Your task to perform on an android device: turn pop-ups off in chrome Image 0: 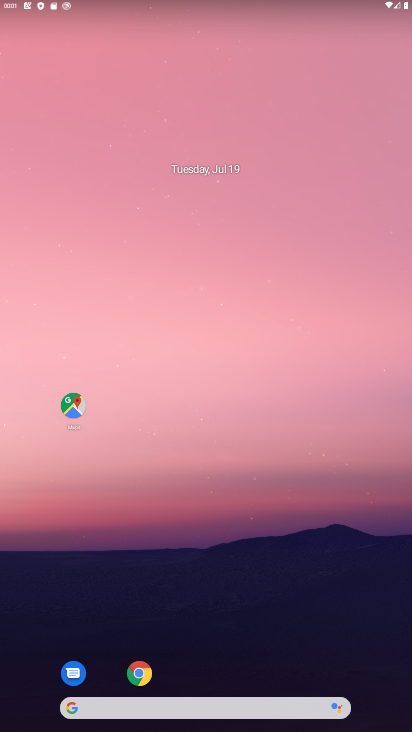
Step 0: drag from (235, 650) to (235, 188)
Your task to perform on an android device: turn pop-ups off in chrome Image 1: 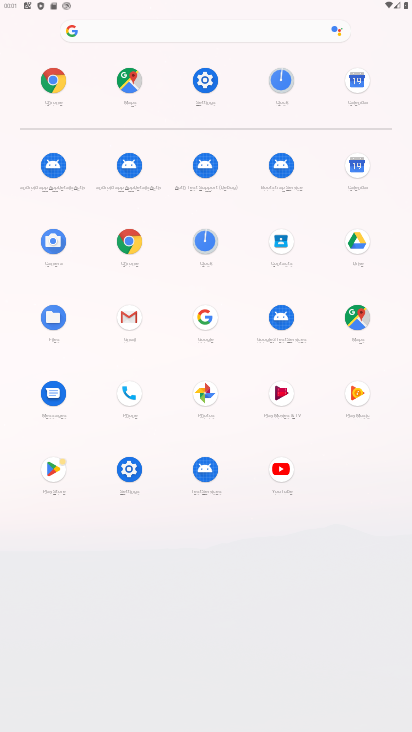
Step 1: click (56, 87)
Your task to perform on an android device: turn pop-ups off in chrome Image 2: 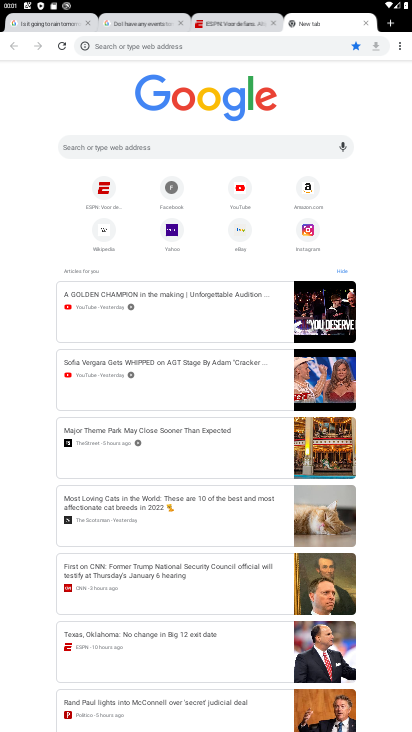
Step 2: click (402, 42)
Your task to perform on an android device: turn pop-ups off in chrome Image 3: 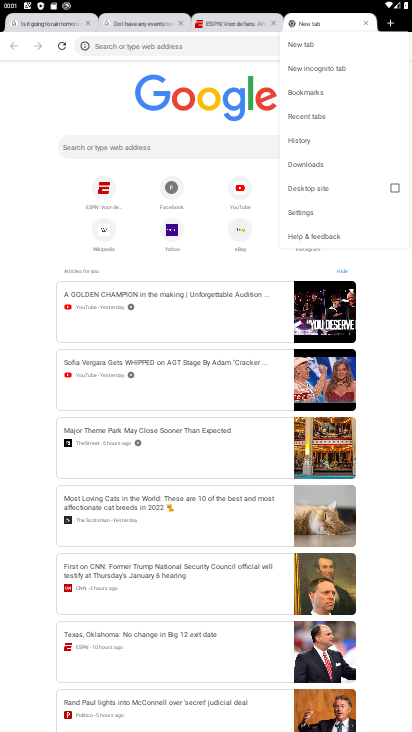
Step 3: click (318, 206)
Your task to perform on an android device: turn pop-ups off in chrome Image 4: 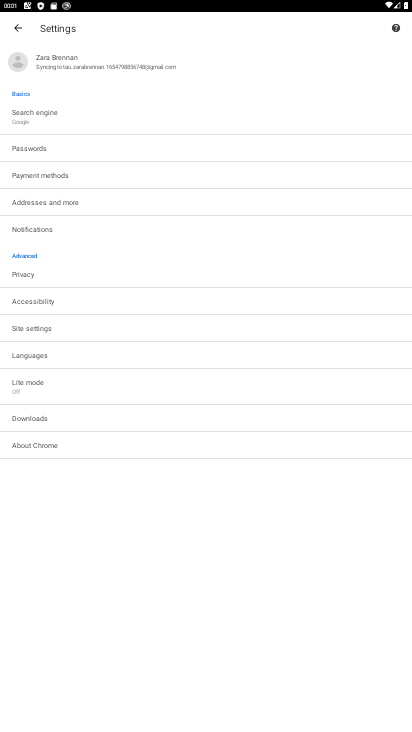
Step 4: click (71, 326)
Your task to perform on an android device: turn pop-ups off in chrome Image 5: 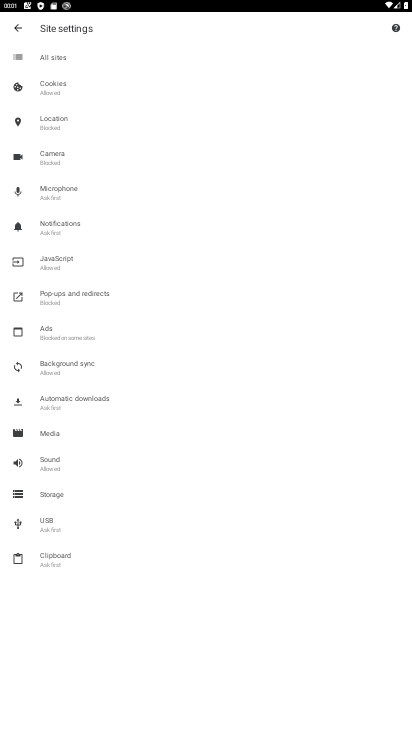
Step 5: click (81, 291)
Your task to perform on an android device: turn pop-ups off in chrome Image 6: 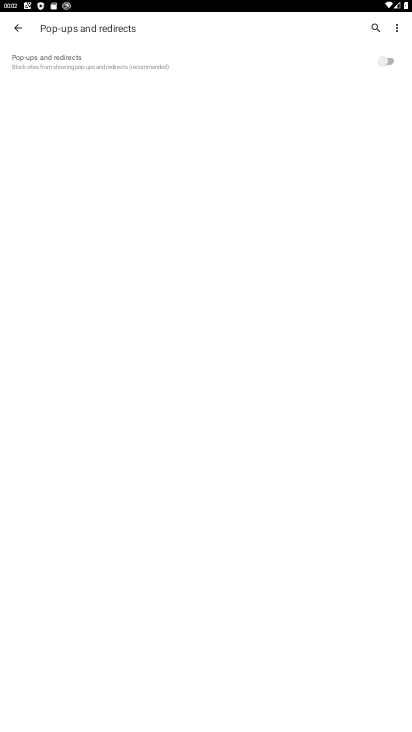
Step 6: task complete